Your task to perform on an android device: visit the assistant section in the google photos Image 0: 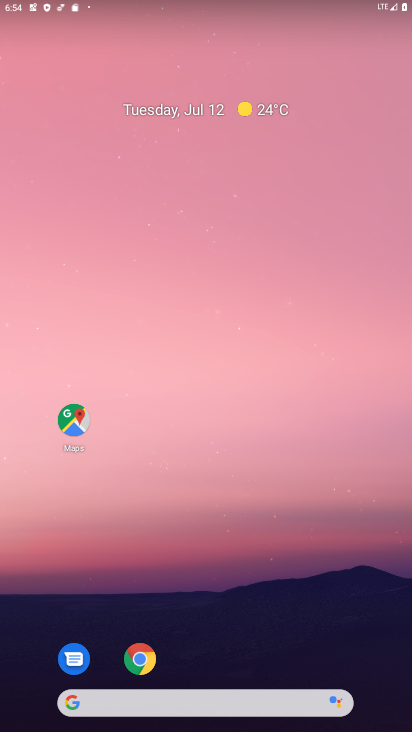
Step 0: drag from (336, 655) to (186, 15)
Your task to perform on an android device: visit the assistant section in the google photos Image 1: 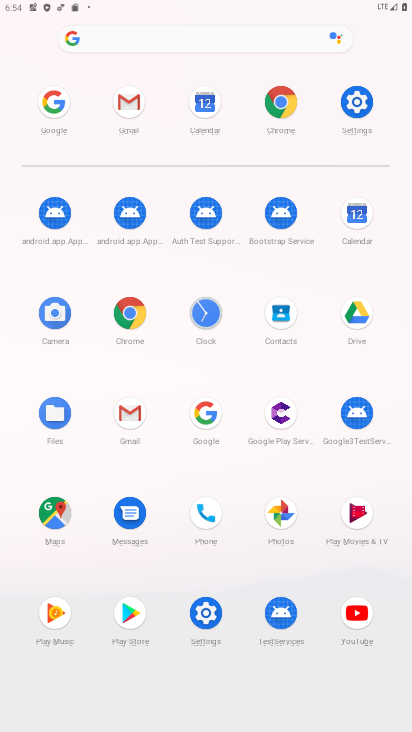
Step 1: click (282, 520)
Your task to perform on an android device: visit the assistant section in the google photos Image 2: 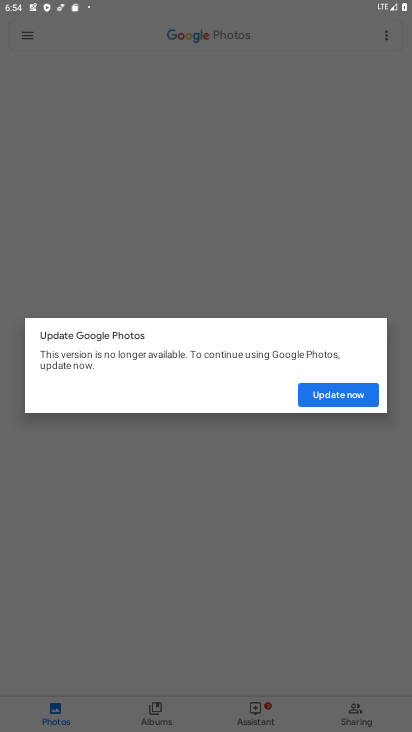
Step 2: click (329, 395)
Your task to perform on an android device: visit the assistant section in the google photos Image 3: 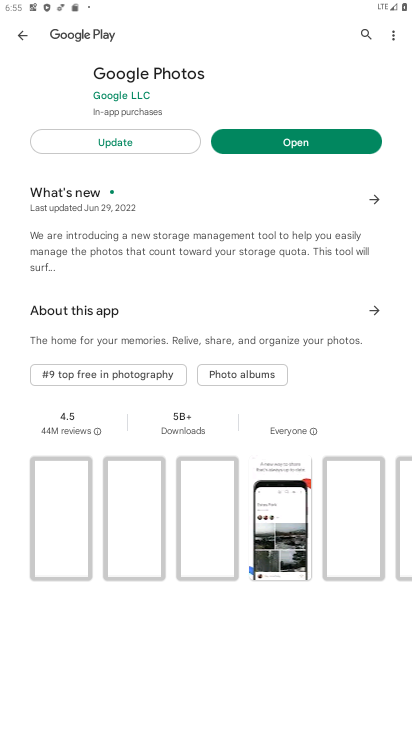
Step 3: click (99, 142)
Your task to perform on an android device: visit the assistant section in the google photos Image 4: 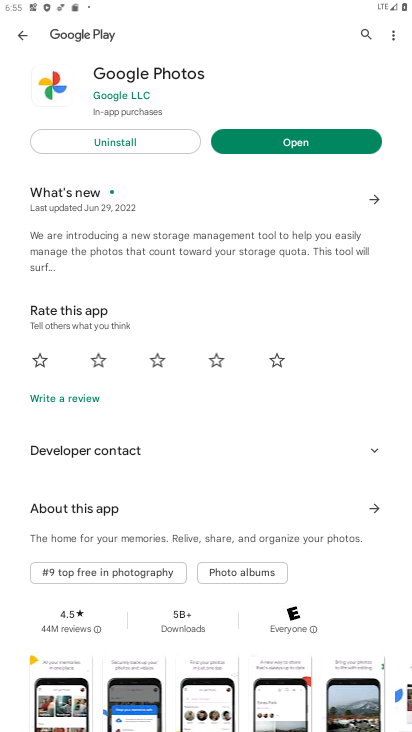
Step 4: click (236, 144)
Your task to perform on an android device: visit the assistant section in the google photos Image 5: 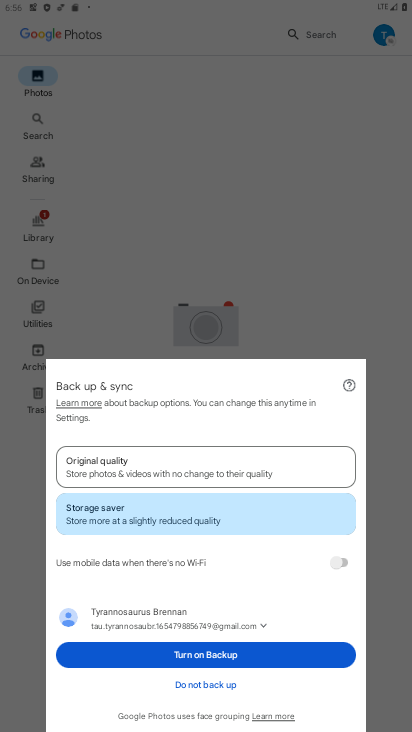
Step 5: click (211, 658)
Your task to perform on an android device: visit the assistant section in the google photos Image 6: 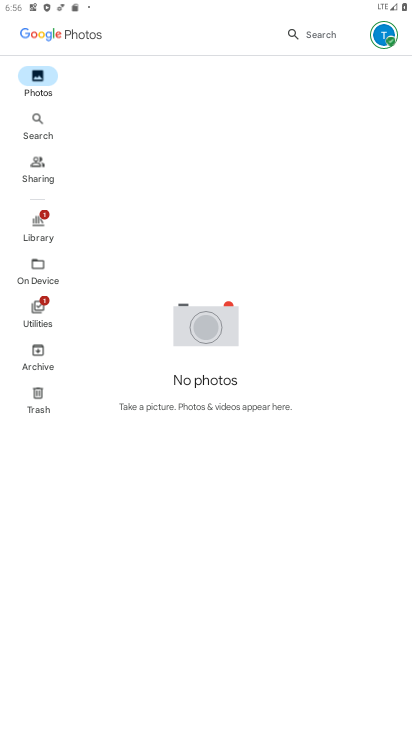
Step 6: task complete